Your task to perform on an android device: Open the web browser Image 0: 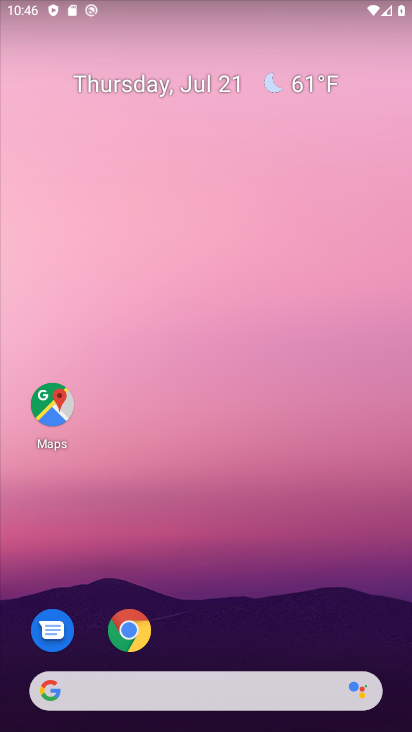
Step 0: click (140, 636)
Your task to perform on an android device: Open the web browser Image 1: 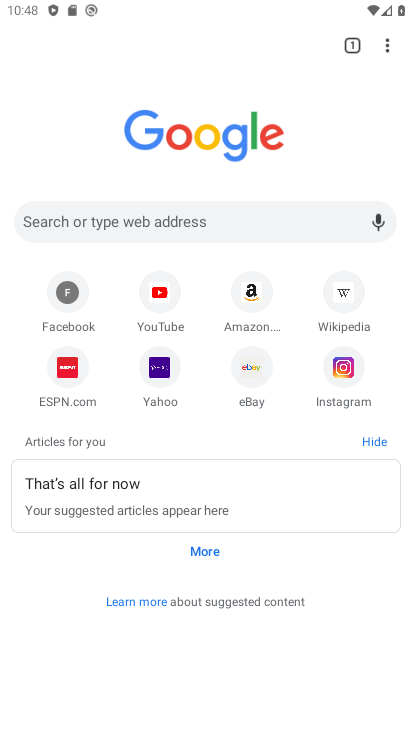
Step 1: task complete